Your task to perform on an android device: set the stopwatch Image 0: 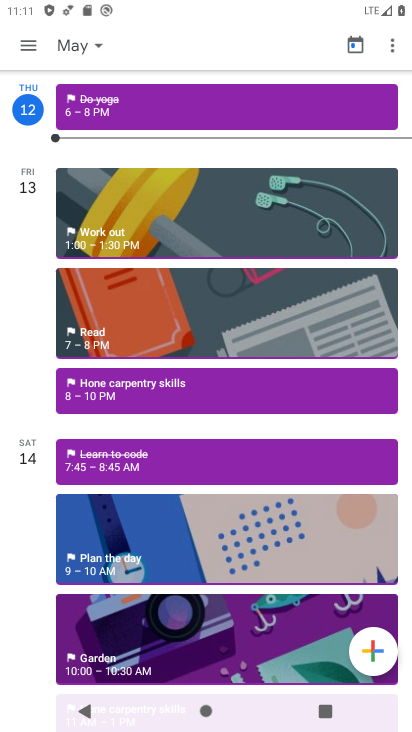
Step 0: press home button
Your task to perform on an android device: set the stopwatch Image 1: 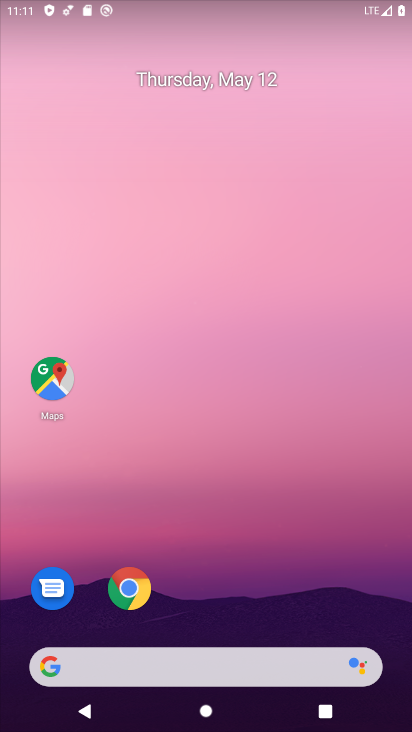
Step 1: drag from (253, 589) to (309, 111)
Your task to perform on an android device: set the stopwatch Image 2: 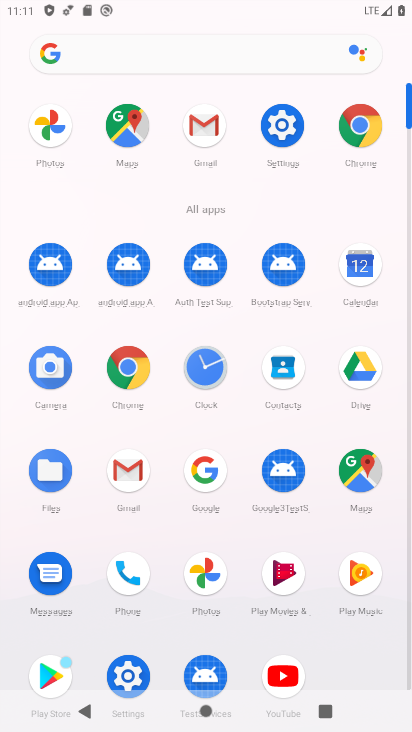
Step 2: click (203, 358)
Your task to perform on an android device: set the stopwatch Image 3: 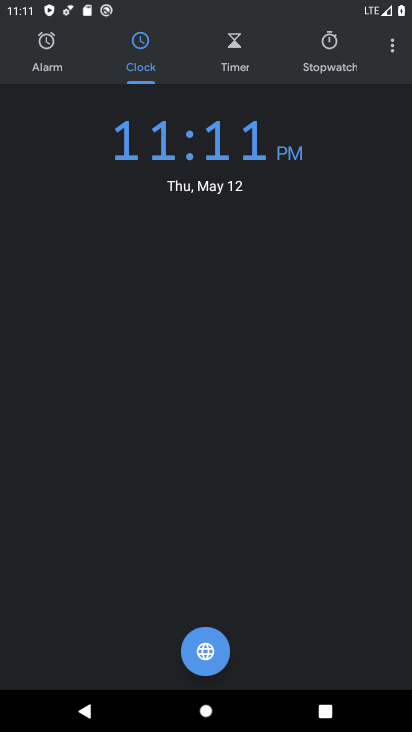
Step 3: click (330, 55)
Your task to perform on an android device: set the stopwatch Image 4: 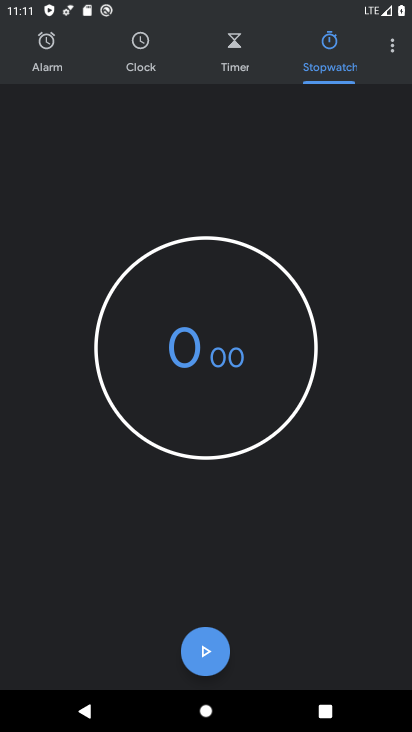
Step 4: click (212, 644)
Your task to perform on an android device: set the stopwatch Image 5: 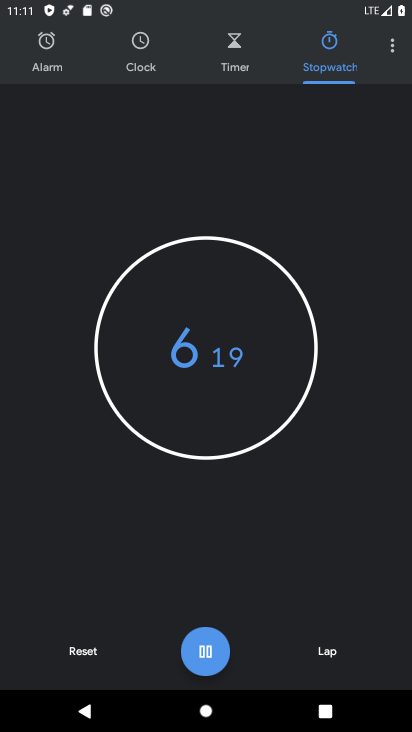
Step 5: click (216, 646)
Your task to perform on an android device: set the stopwatch Image 6: 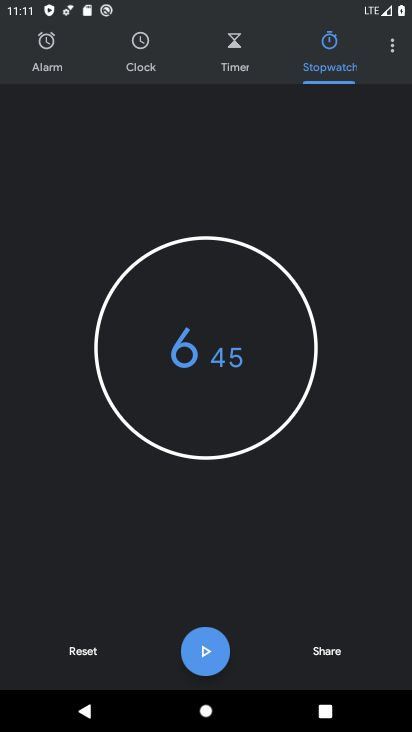
Step 6: task complete